Your task to perform on an android device: turn off airplane mode Image 0: 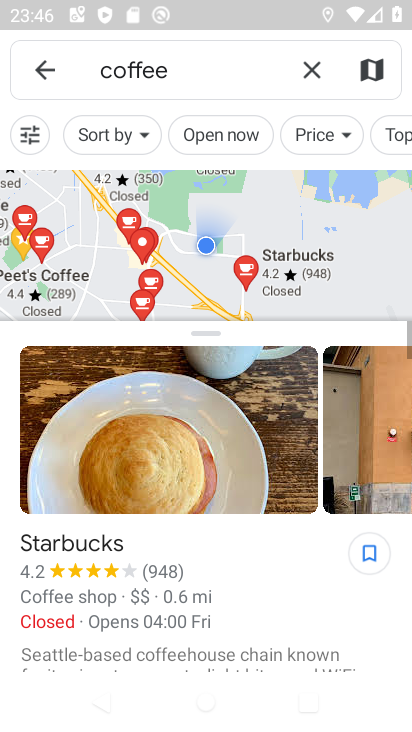
Step 0: press home button
Your task to perform on an android device: turn off airplane mode Image 1: 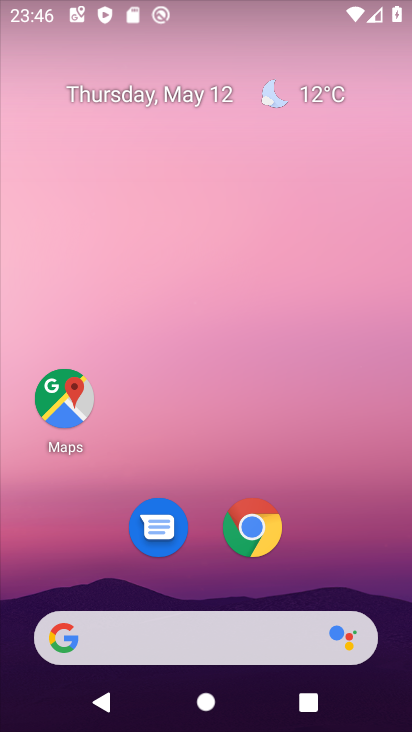
Step 1: drag from (44, 518) to (335, 161)
Your task to perform on an android device: turn off airplane mode Image 2: 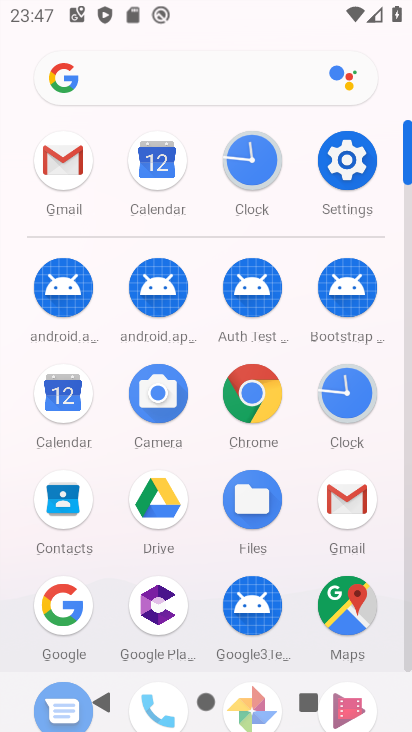
Step 2: click (349, 141)
Your task to perform on an android device: turn off airplane mode Image 3: 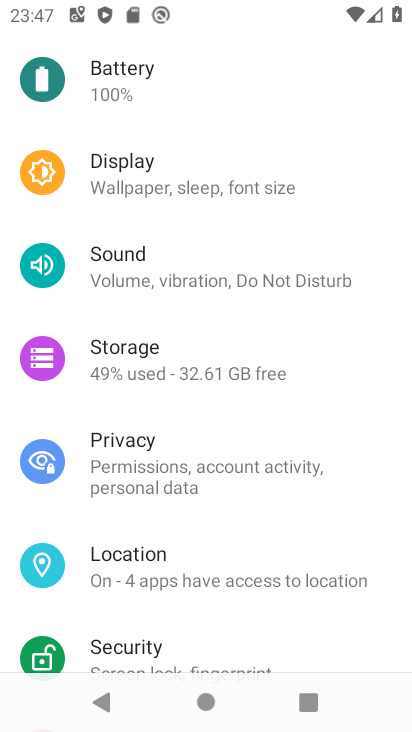
Step 3: drag from (308, 108) to (143, 587)
Your task to perform on an android device: turn off airplane mode Image 4: 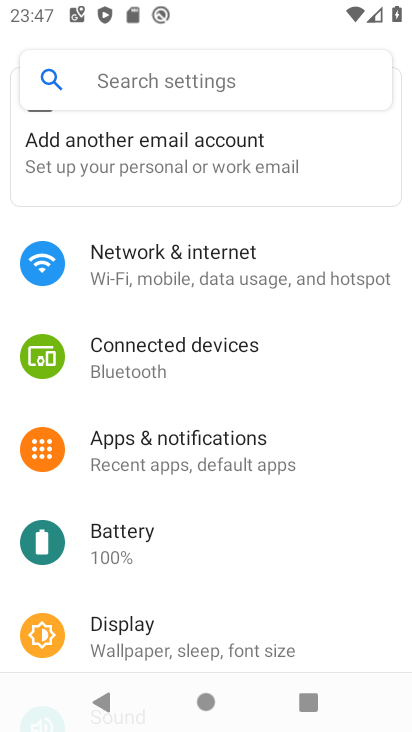
Step 4: click (269, 267)
Your task to perform on an android device: turn off airplane mode Image 5: 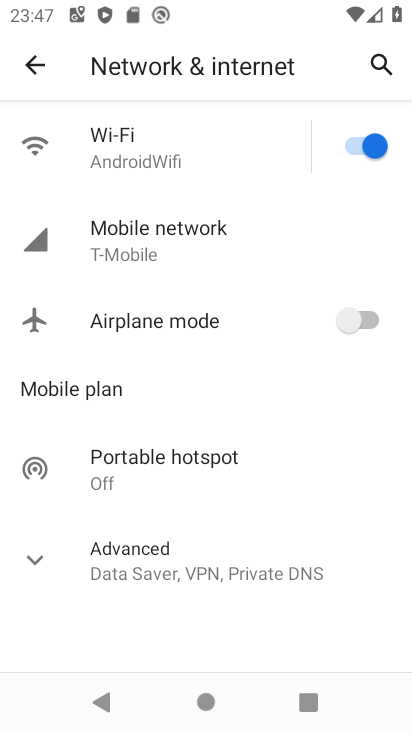
Step 5: click (201, 342)
Your task to perform on an android device: turn off airplane mode Image 6: 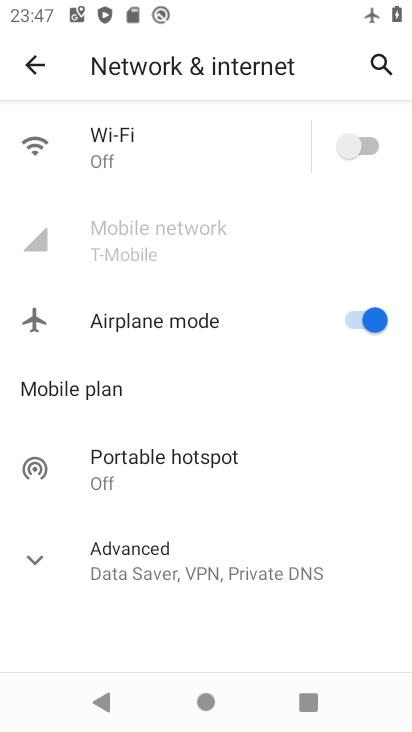
Step 6: click (383, 326)
Your task to perform on an android device: turn off airplane mode Image 7: 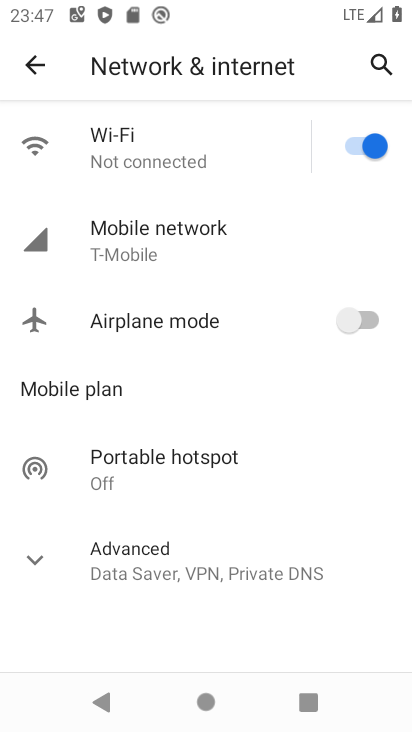
Step 7: task complete